Your task to perform on an android device: Play the last video I watched on Youtube Image 0: 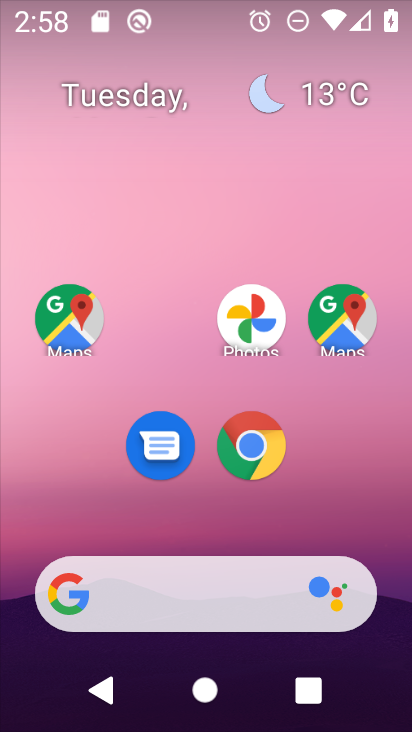
Step 0: drag from (399, 565) to (380, 165)
Your task to perform on an android device: Play the last video I watched on Youtube Image 1: 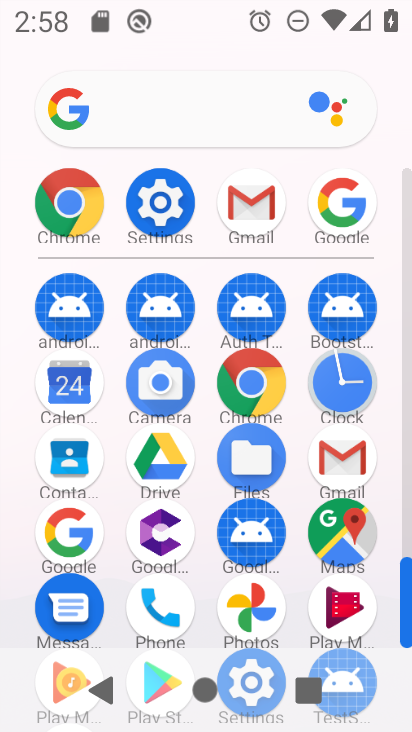
Step 1: drag from (382, 638) to (379, 527)
Your task to perform on an android device: Play the last video I watched on Youtube Image 2: 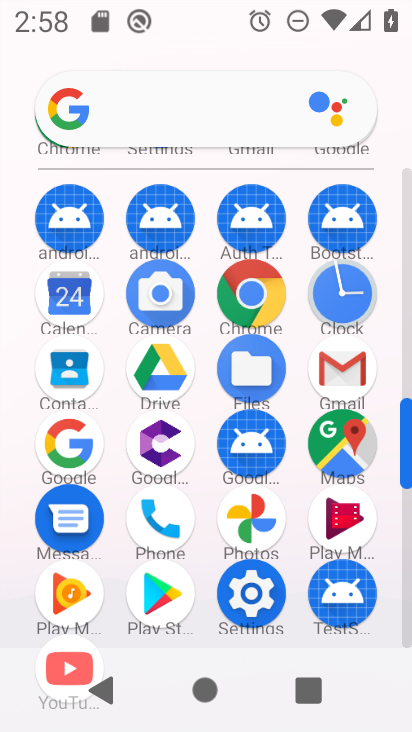
Step 2: drag from (383, 618) to (380, 407)
Your task to perform on an android device: Play the last video I watched on Youtube Image 3: 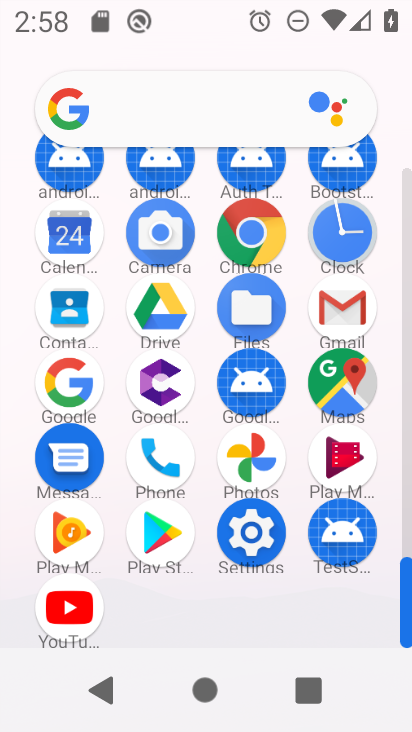
Step 3: click (72, 620)
Your task to perform on an android device: Play the last video I watched on Youtube Image 4: 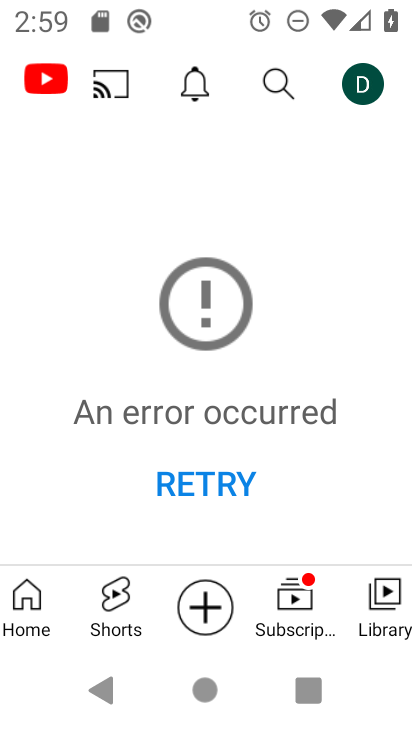
Step 4: click (24, 622)
Your task to perform on an android device: Play the last video I watched on Youtube Image 5: 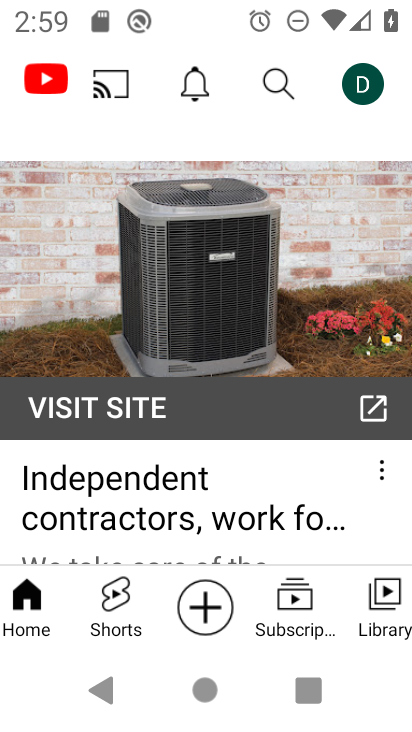
Step 5: click (375, 617)
Your task to perform on an android device: Play the last video I watched on Youtube Image 6: 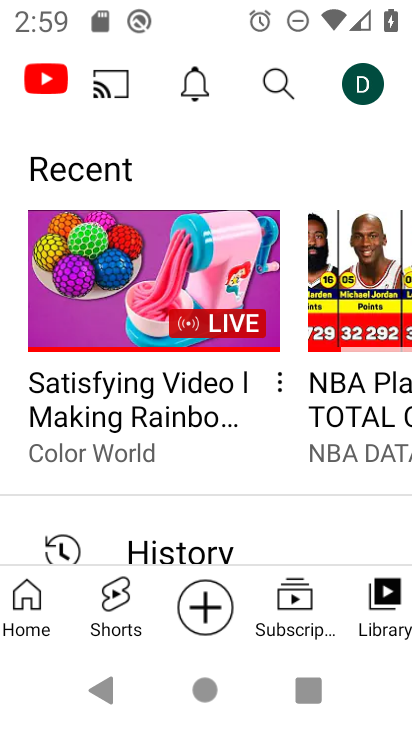
Step 6: click (134, 307)
Your task to perform on an android device: Play the last video I watched on Youtube Image 7: 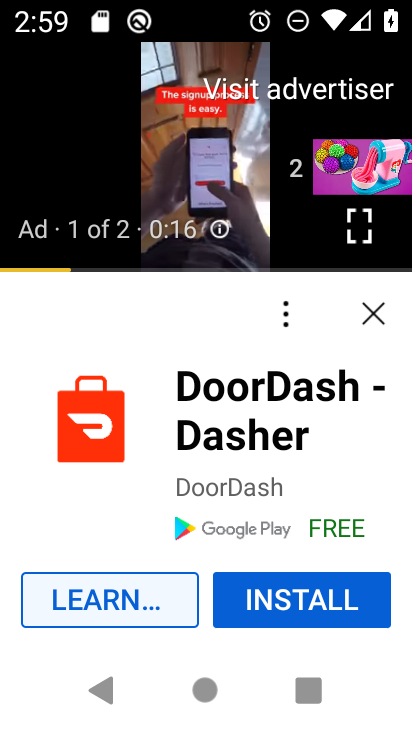
Step 7: task complete